Your task to perform on an android device: change the clock display to analog Image 0: 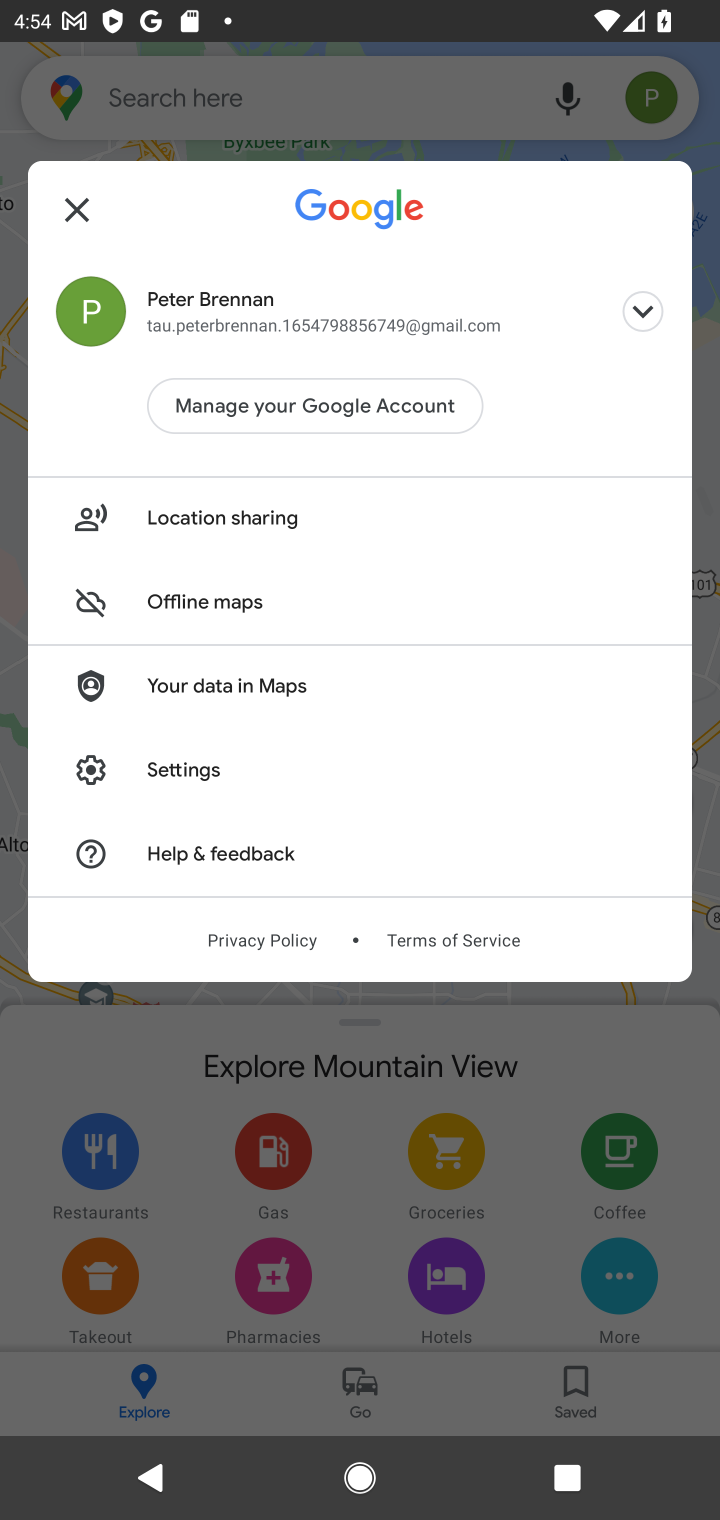
Step 0: press home button
Your task to perform on an android device: change the clock display to analog Image 1: 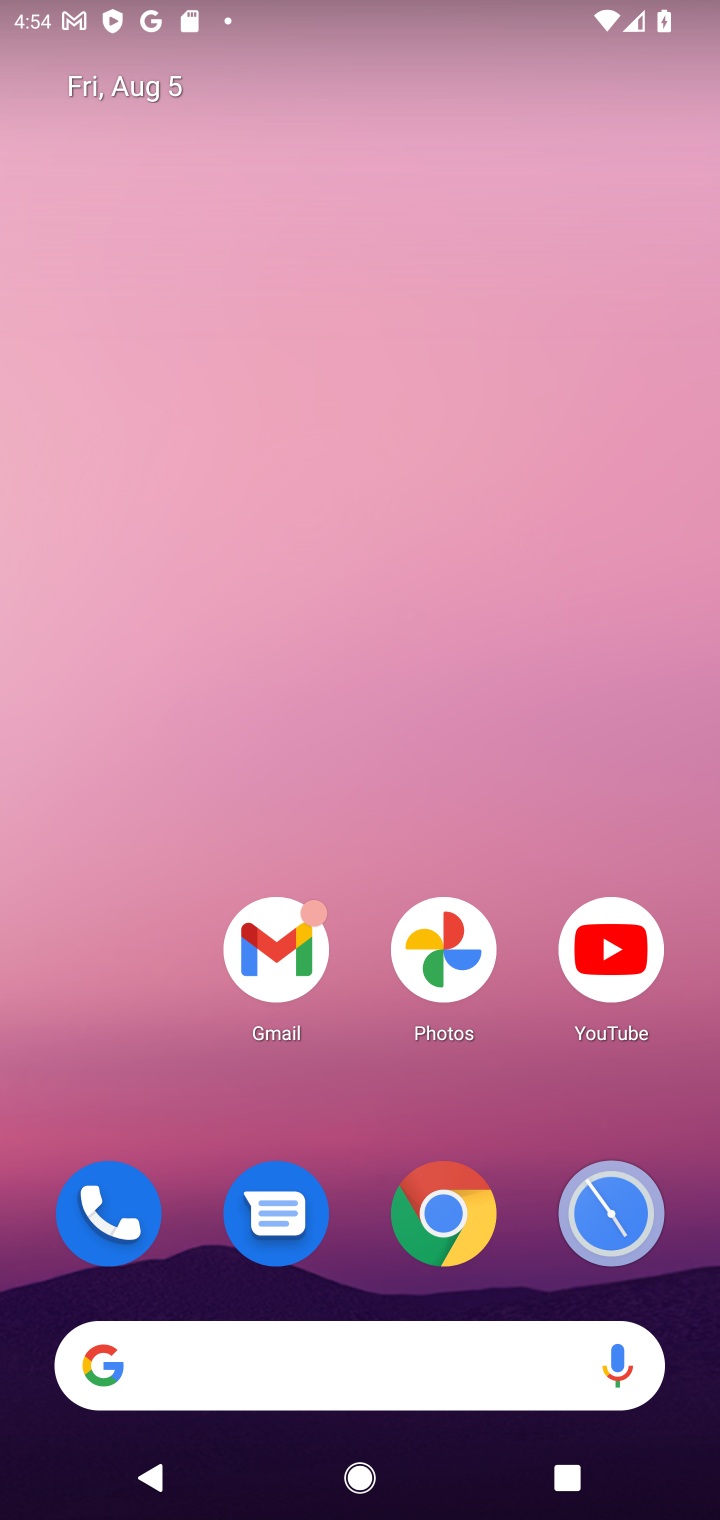
Step 1: click (621, 1198)
Your task to perform on an android device: change the clock display to analog Image 2: 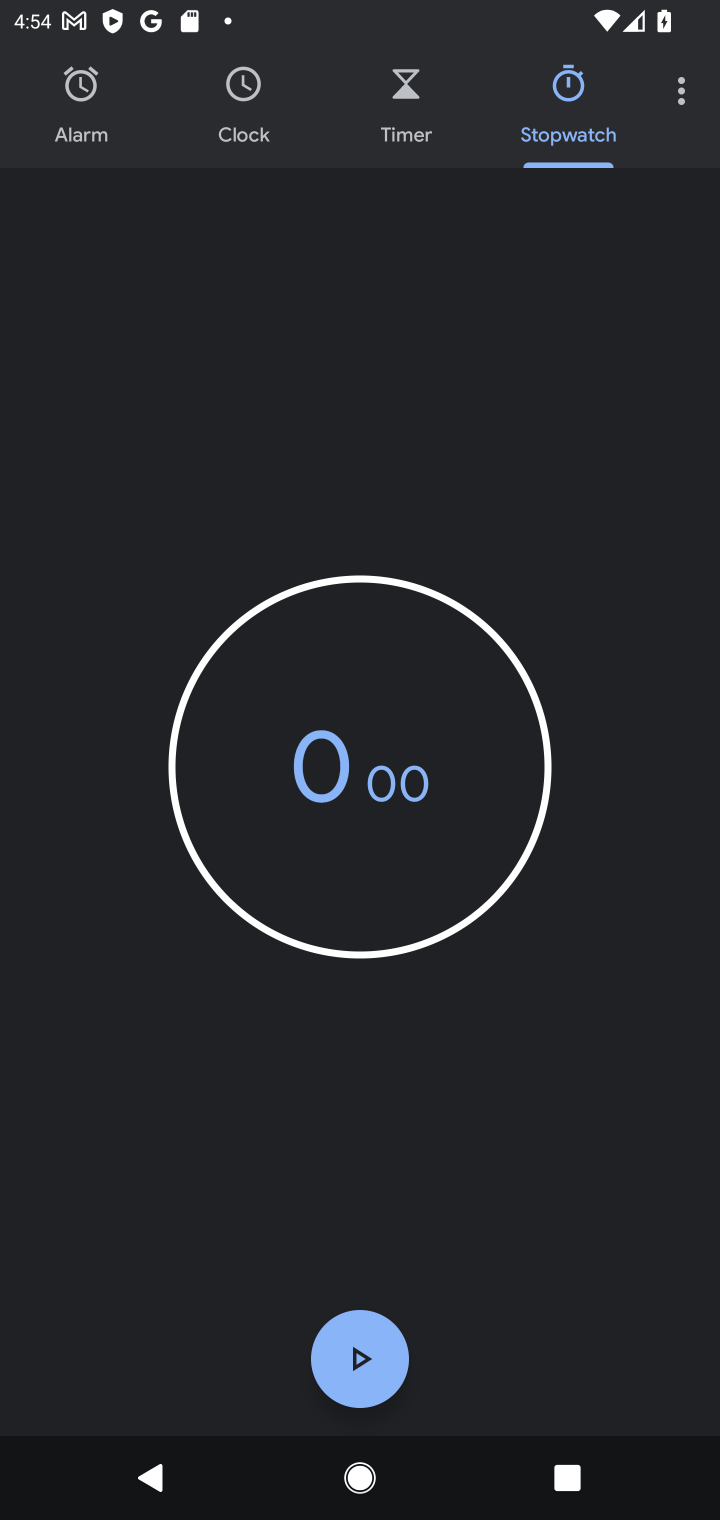
Step 2: click (690, 80)
Your task to perform on an android device: change the clock display to analog Image 3: 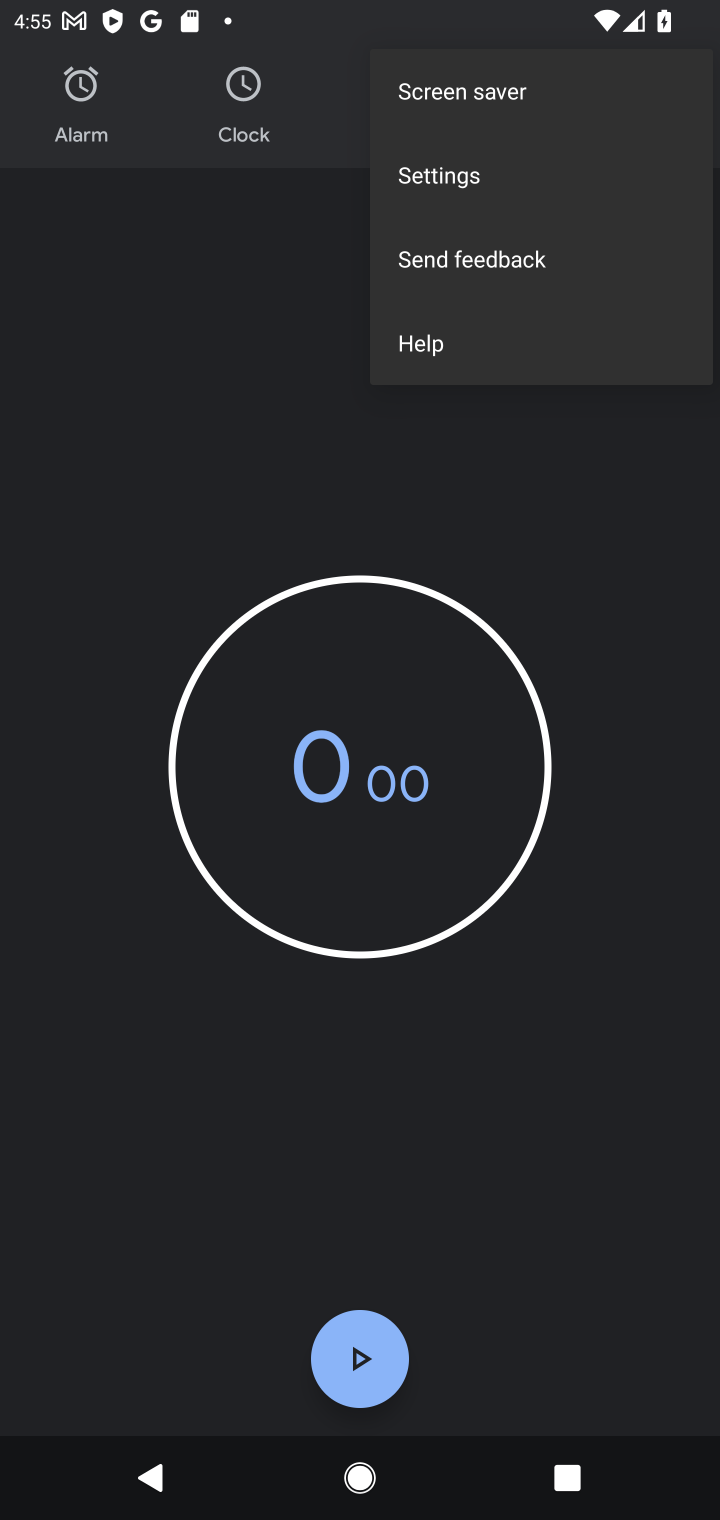
Step 3: click (456, 175)
Your task to perform on an android device: change the clock display to analog Image 4: 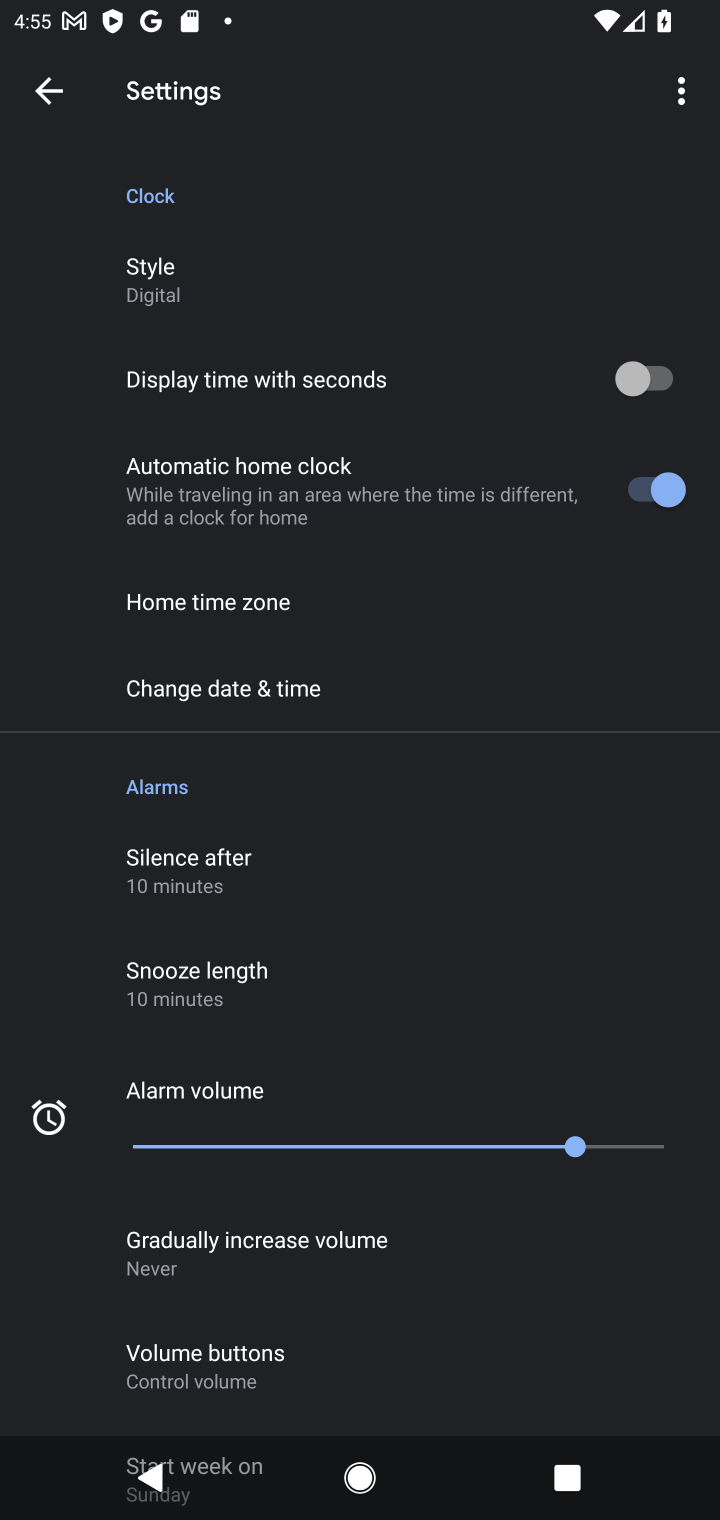
Step 4: click (396, 681)
Your task to perform on an android device: change the clock display to analog Image 5: 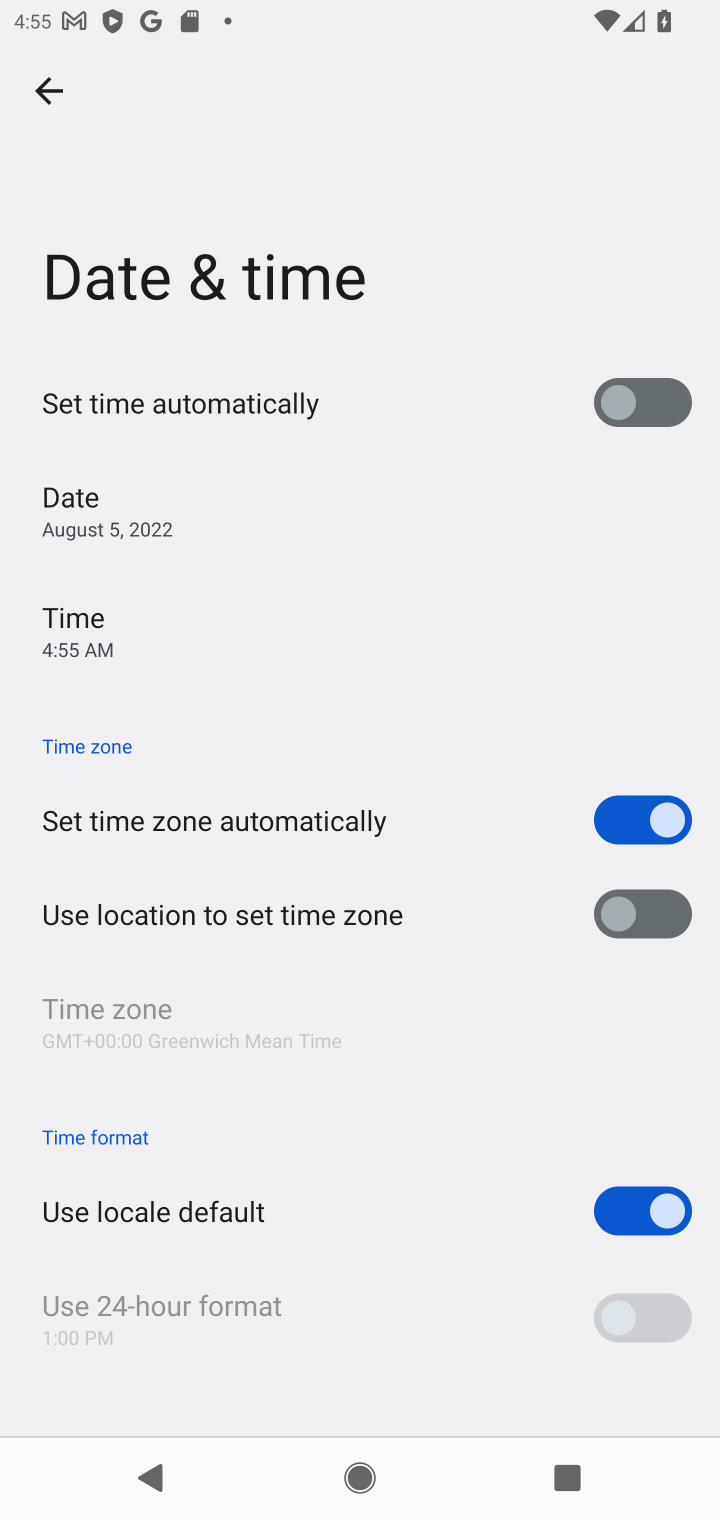
Step 5: task complete